Your task to perform on an android device: What is the news today? Image 0: 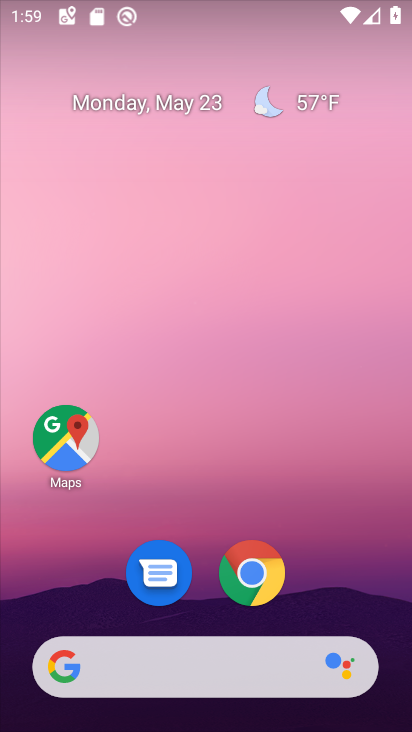
Step 0: click (190, 651)
Your task to perform on an android device: What is the news today? Image 1: 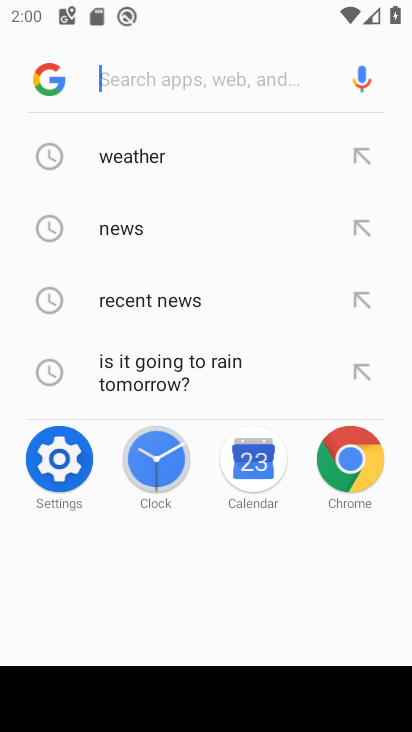
Step 1: click (112, 227)
Your task to perform on an android device: What is the news today? Image 2: 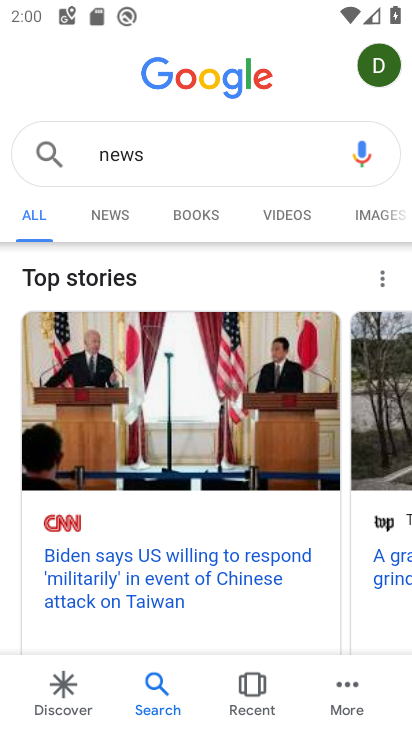
Step 2: click (150, 163)
Your task to perform on an android device: What is the news today? Image 3: 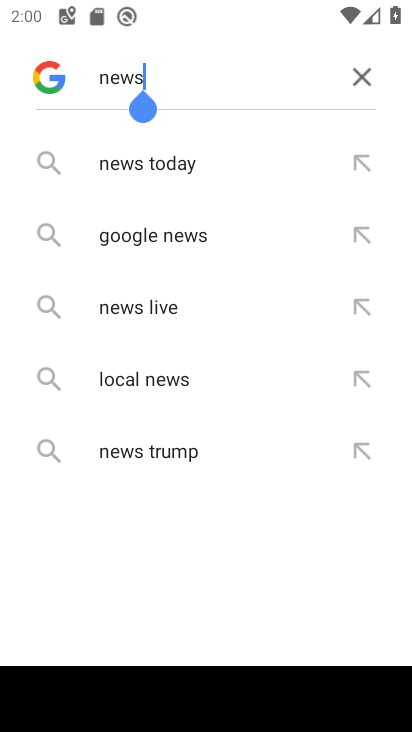
Step 3: click (185, 173)
Your task to perform on an android device: What is the news today? Image 4: 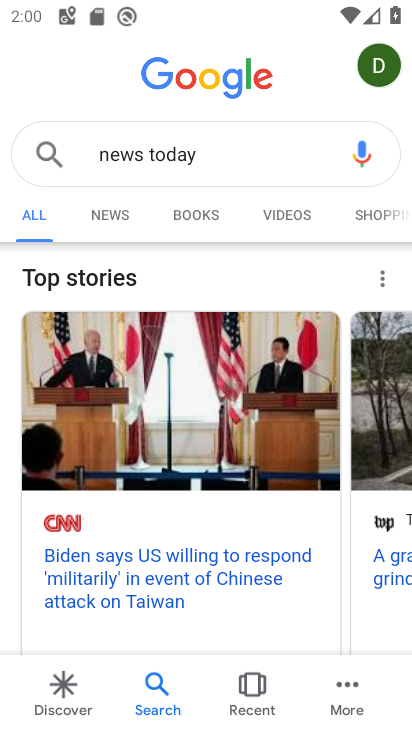
Step 4: task complete